Your task to perform on an android device: Check the weather Image 0: 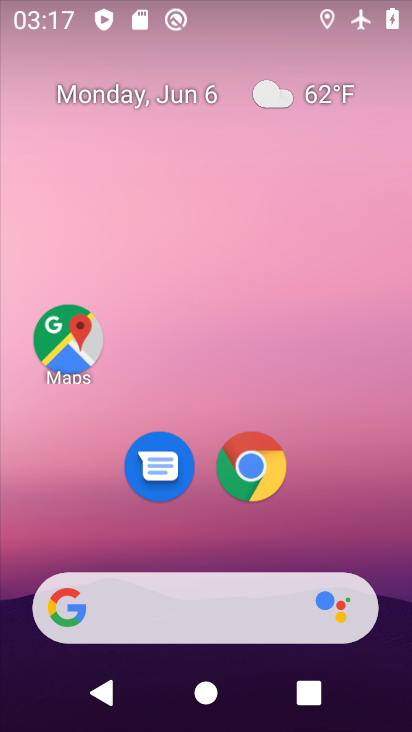
Step 0: click (322, 88)
Your task to perform on an android device: Check the weather Image 1: 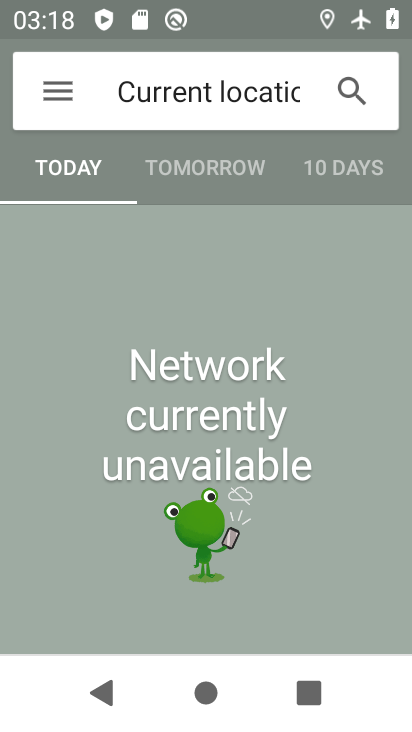
Step 1: task complete